Your task to perform on an android device: delete a single message in the gmail app Image 0: 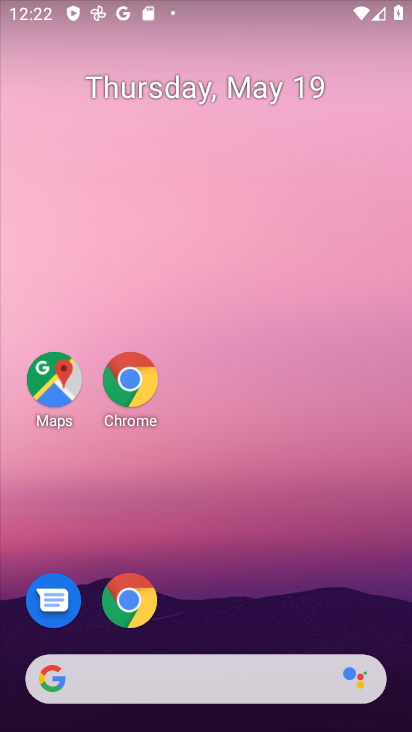
Step 0: drag from (265, 698) to (176, 242)
Your task to perform on an android device: delete a single message in the gmail app Image 1: 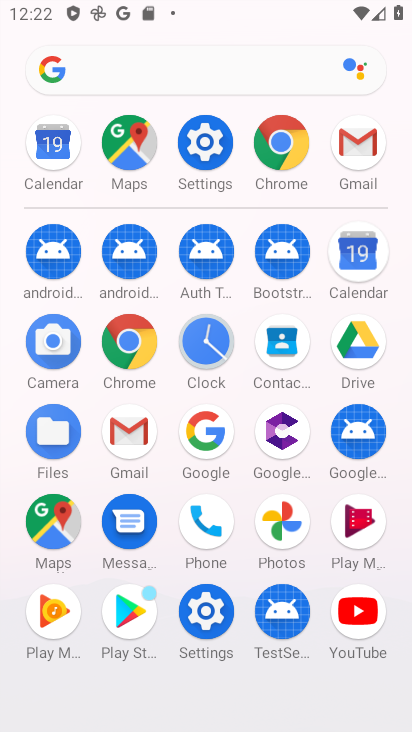
Step 1: click (131, 434)
Your task to perform on an android device: delete a single message in the gmail app Image 2: 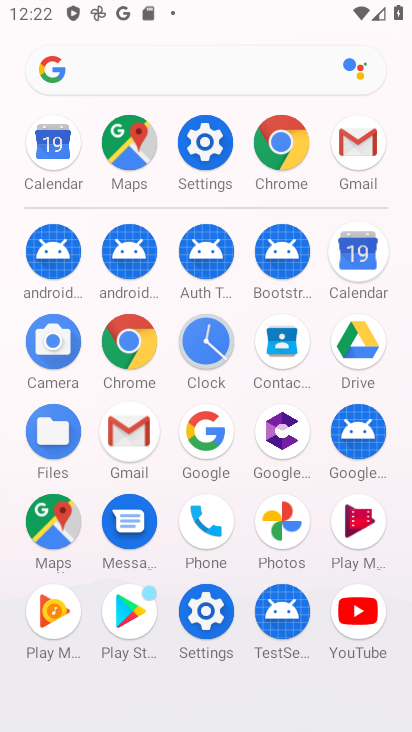
Step 2: click (130, 434)
Your task to perform on an android device: delete a single message in the gmail app Image 3: 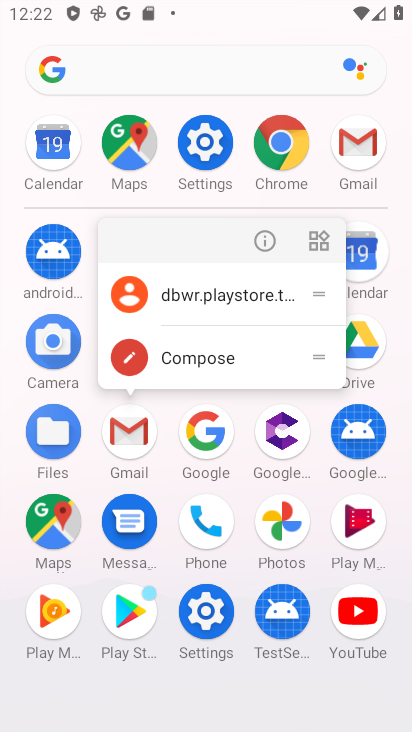
Step 3: click (130, 434)
Your task to perform on an android device: delete a single message in the gmail app Image 4: 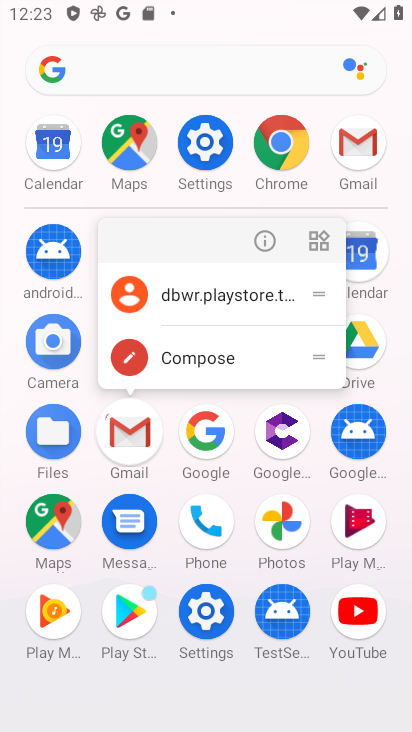
Step 4: click (132, 433)
Your task to perform on an android device: delete a single message in the gmail app Image 5: 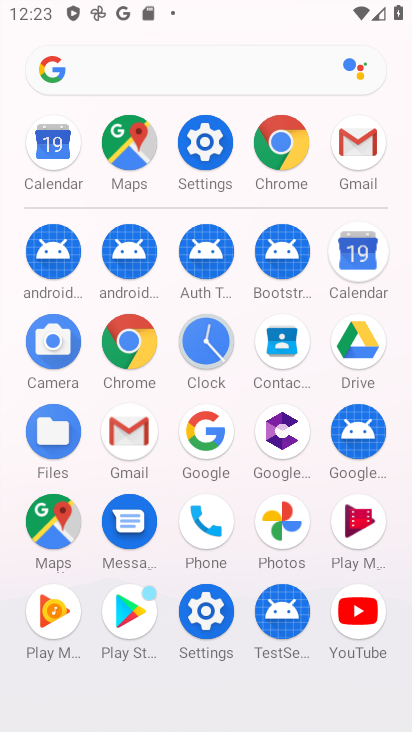
Step 5: click (133, 432)
Your task to perform on an android device: delete a single message in the gmail app Image 6: 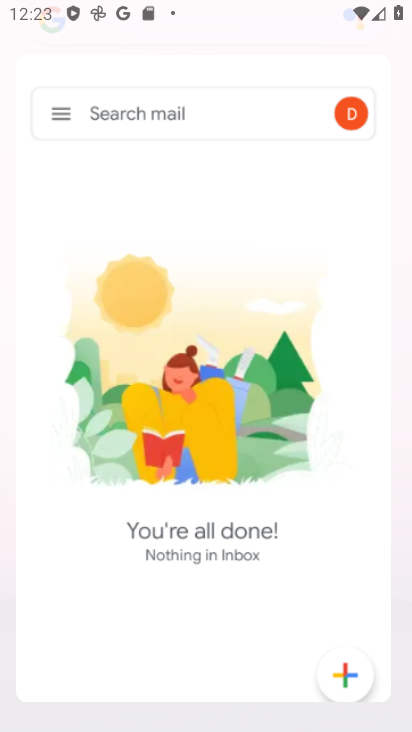
Step 6: click (139, 432)
Your task to perform on an android device: delete a single message in the gmail app Image 7: 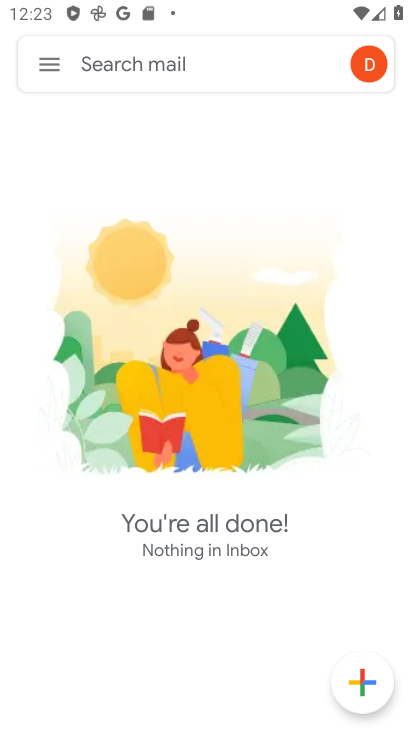
Step 7: click (53, 70)
Your task to perform on an android device: delete a single message in the gmail app Image 8: 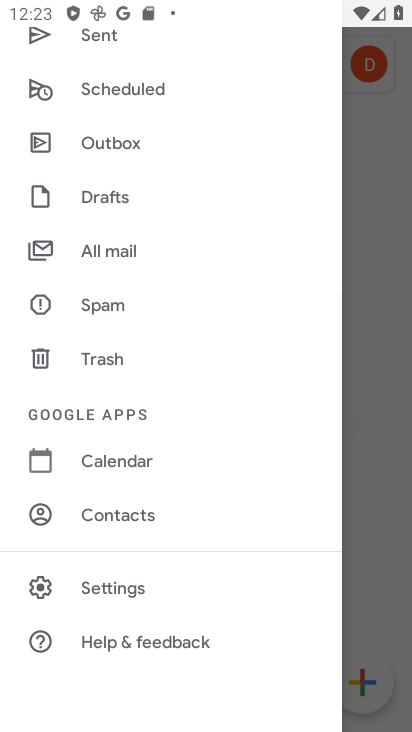
Step 8: drag from (149, 472) to (83, 85)
Your task to perform on an android device: delete a single message in the gmail app Image 9: 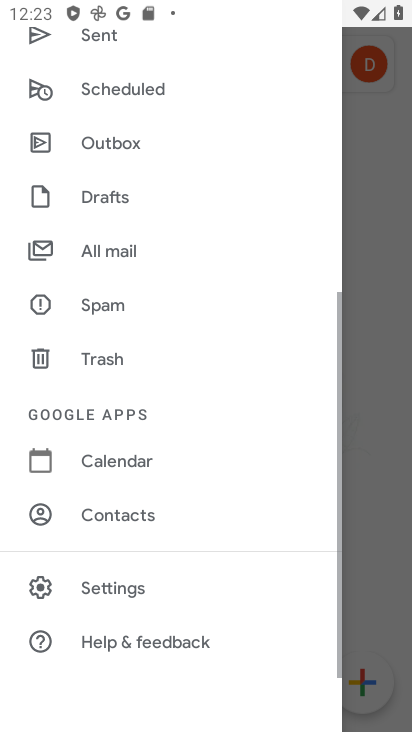
Step 9: drag from (176, 348) to (131, 10)
Your task to perform on an android device: delete a single message in the gmail app Image 10: 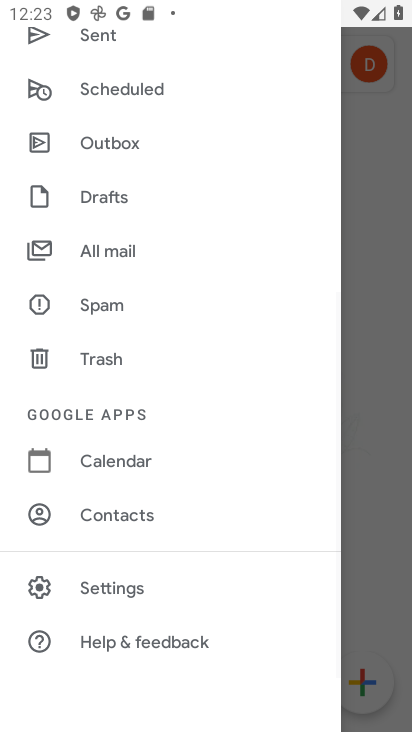
Step 10: drag from (208, 491) to (139, 38)
Your task to perform on an android device: delete a single message in the gmail app Image 11: 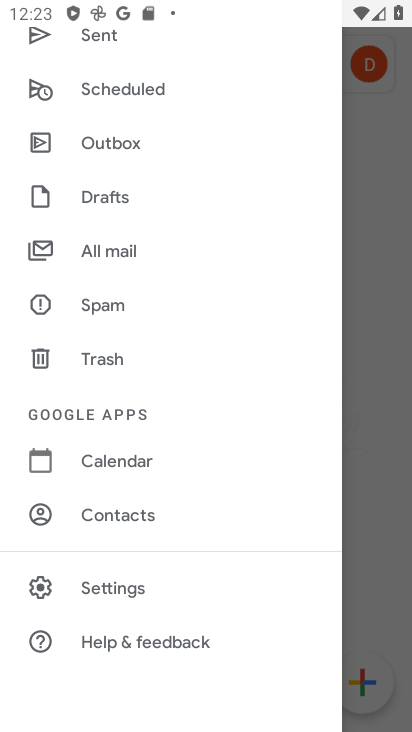
Step 11: click (113, 593)
Your task to perform on an android device: delete a single message in the gmail app Image 12: 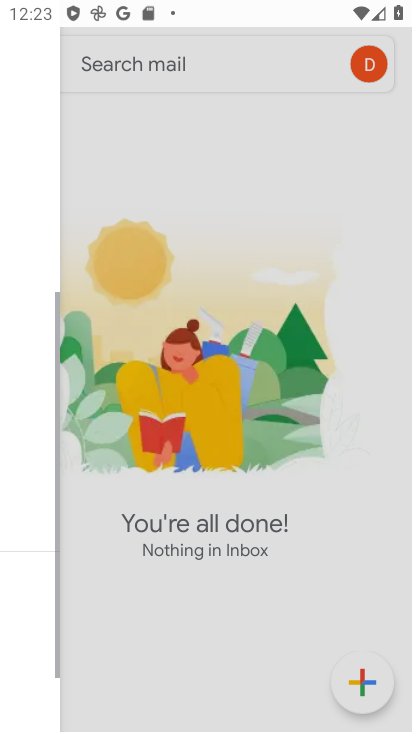
Step 12: click (113, 593)
Your task to perform on an android device: delete a single message in the gmail app Image 13: 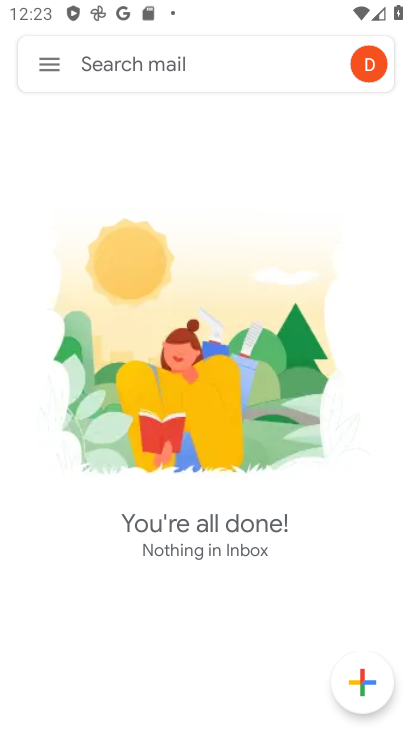
Step 13: click (113, 593)
Your task to perform on an android device: delete a single message in the gmail app Image 14: 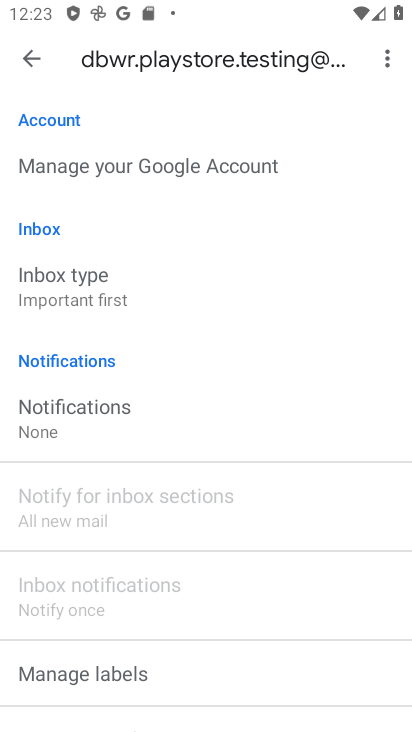
Step 14: click (30, 57)
Your task to perform on an android device: delete a single message in the gmail app Image 15: 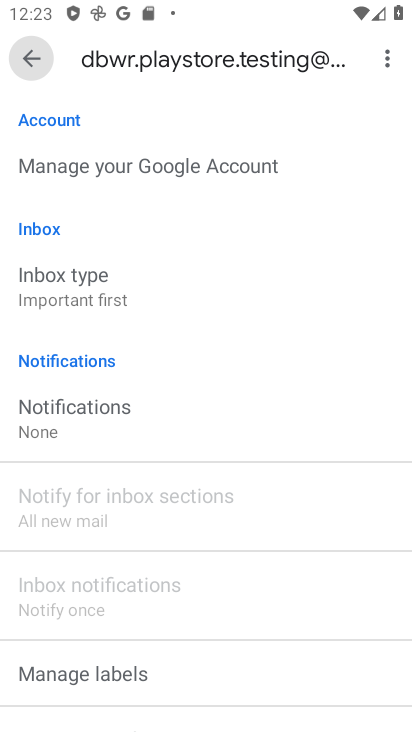
Step 15: click (32, 56)
Your task to perform on an android device: delete a single message in the gmail app Image 16: 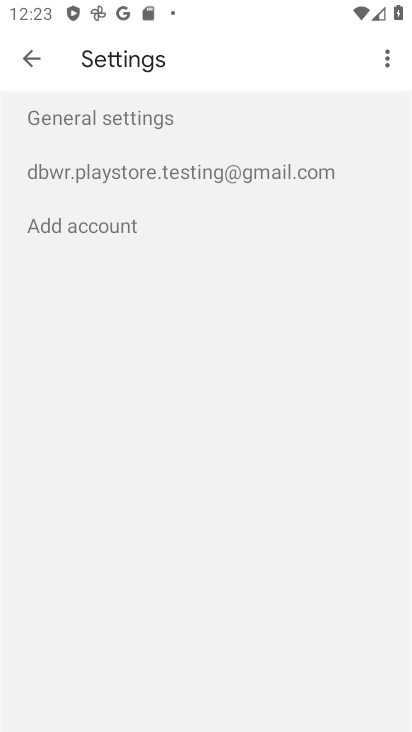
Step 16: click (32, 56)
Your task to perform on an android device: delete a single message in the gmail app Image 17: 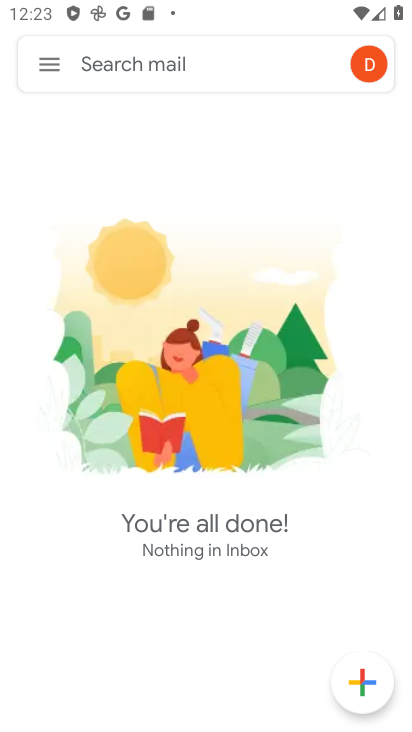
Step 17: click (46, 55)
Your task to perform on an android device: delete a single message in the gmail app Image 18: 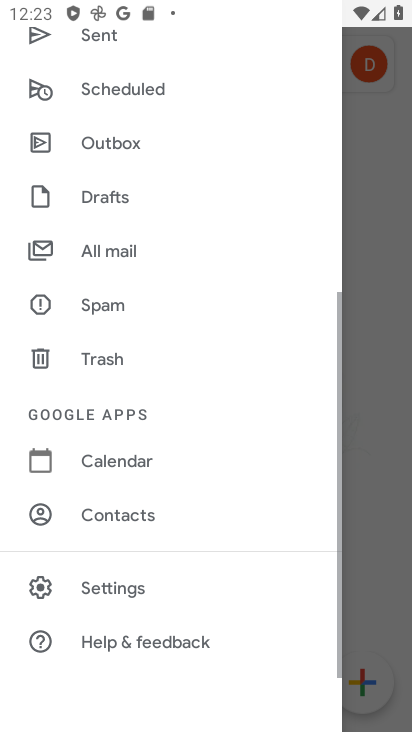
Step 18: click (99, 248)
Your task to perform on an android device: delete a single message in the gmail app Image 19: 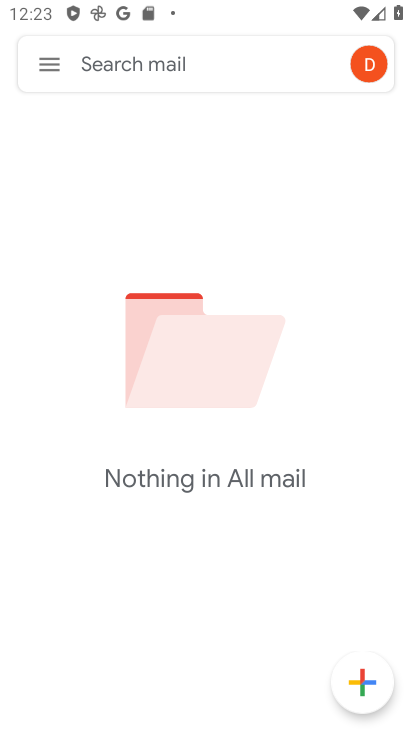
Step 19: task complete